Your task to perform on an android device: open a new tab in the chrome app Image 0: 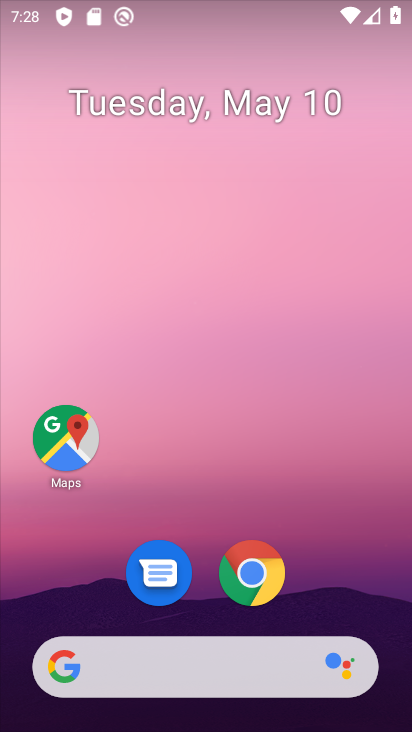
Step 0: drag from (330, 575) to (371, 122)
Your task to perform on an android device: open a new tab in the chrome app Image 1: 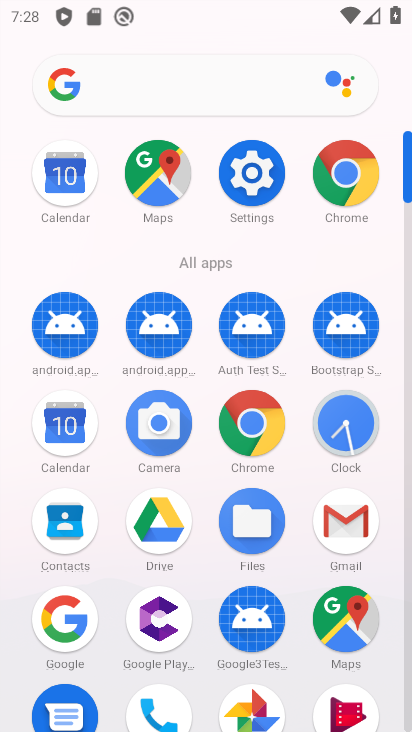
Step 1: drag from (302, 662) to (307, 266)
Your task to perform on an android device: open a new tab in the chrome app Image 2: 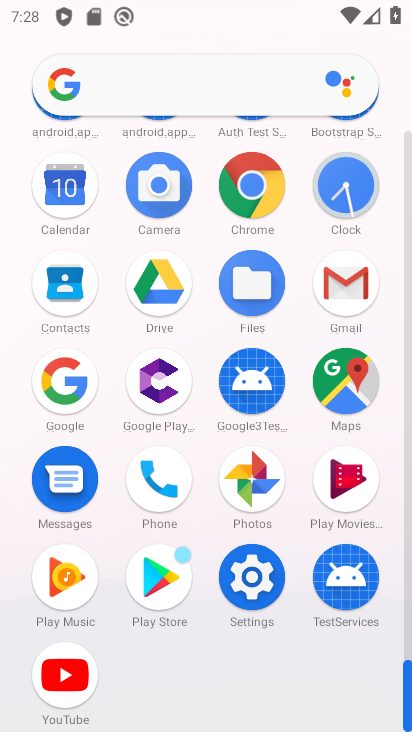
Step 2: click (259, 186)
Your task to perform on an android device: open a new tab in the chrome app Image 3: 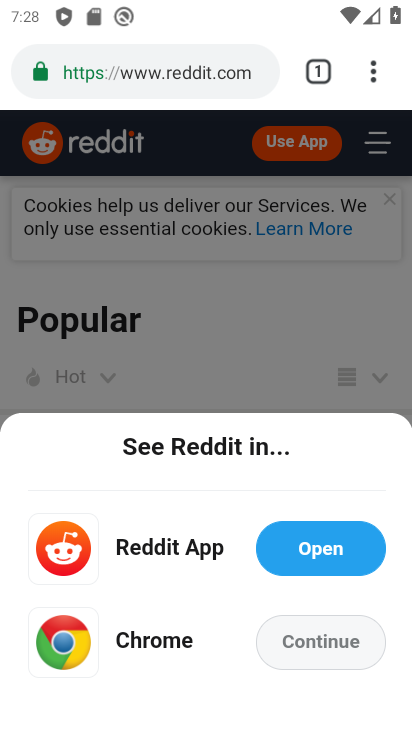
Step 3: click (306, 75)
Your task to perform on an android device: open a new tab in the chrome app Image 4: 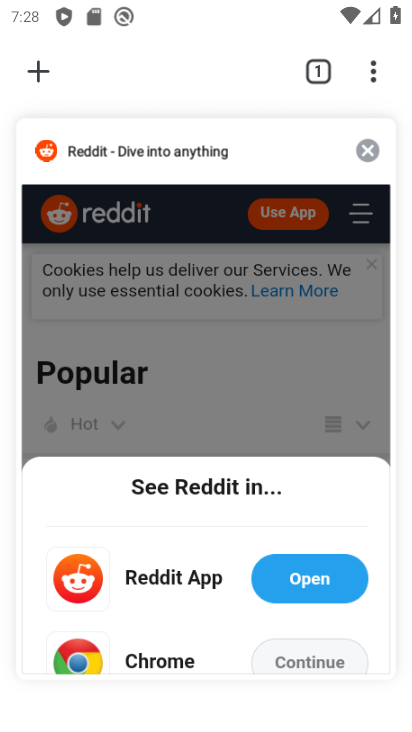
Step 4: click (36, 78)
Your task to perform on an android device: open a new tab in the chrome app Image 5: 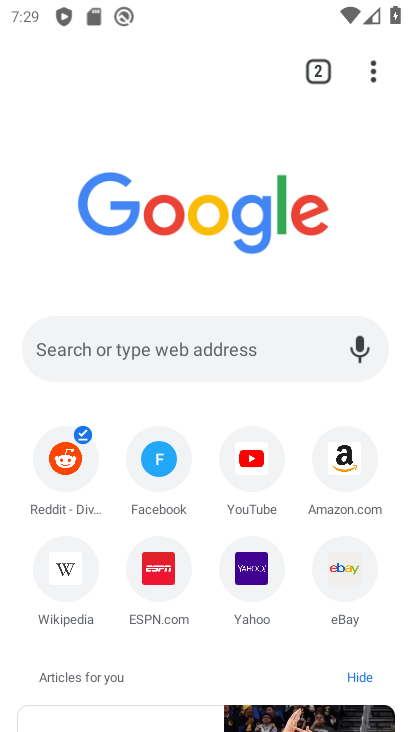
Step 5: task complete